Your task to perform on an android device: toggle javascript in the chrome app Image 0: 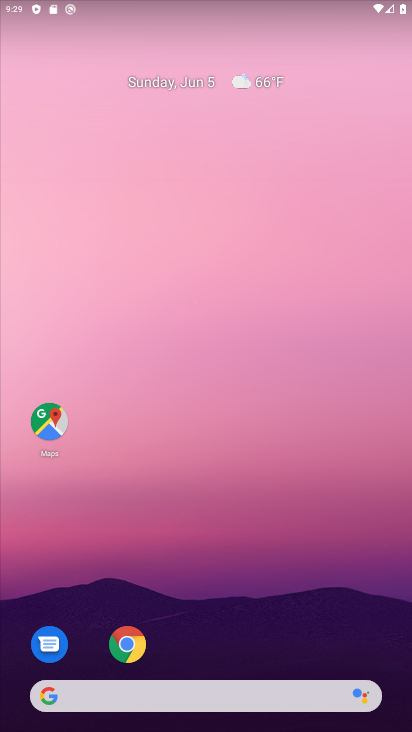
Step 0: click (129, 642)
Your task to perform on an android device: toggle javascript in the chrome app Image 1: 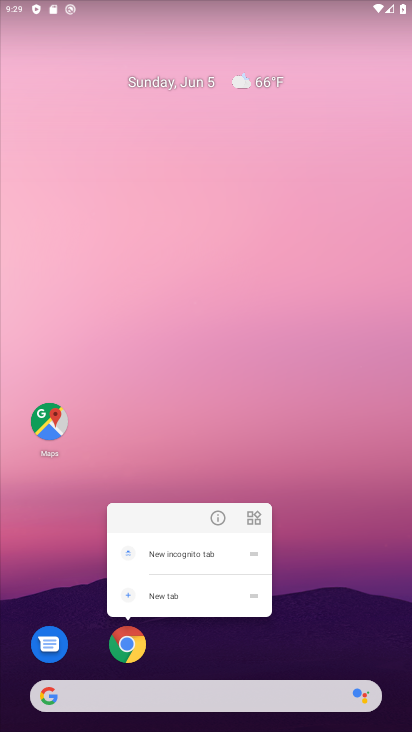
Step 1: click (121, 643)
Your task to perform on an android device: toggle javascript in the chrome app Image 2: 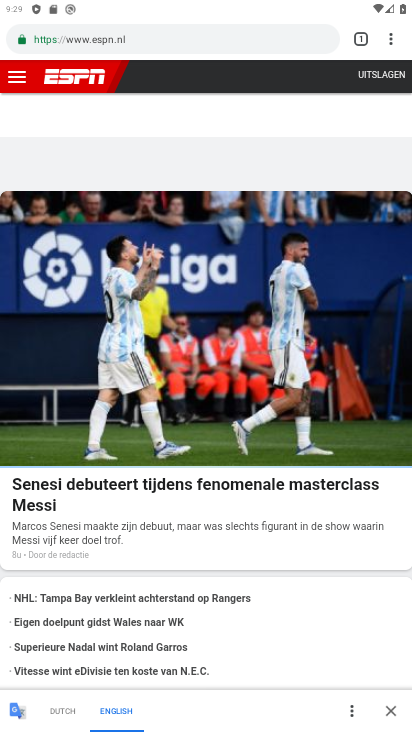
Step 2: click (389, 43)
Your task to perform on an android device: toggle javascript in the chrome app Image 3: 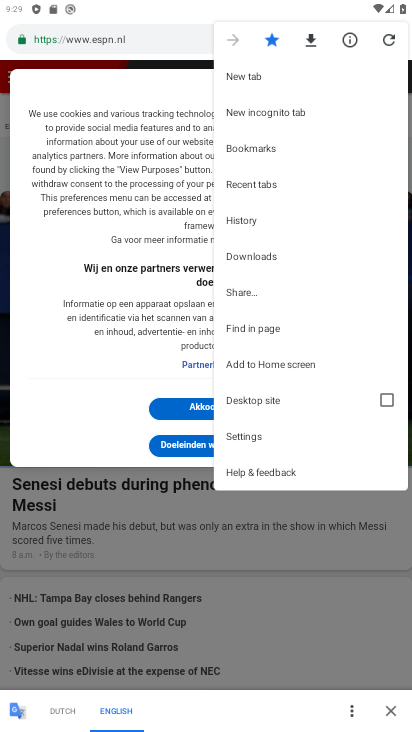
Step 3: click (243, 432)
Your task to perform on an android device: toggle javascript in the chrome app Image 4: 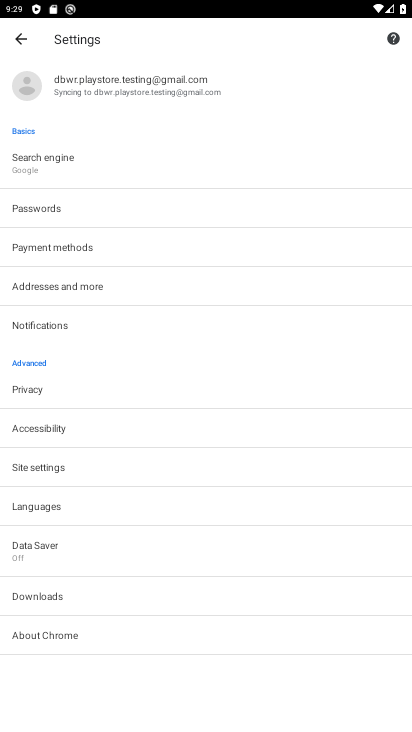
Step 4: click (66, 467)
Your task to perform on an android device: toggle javascript in the chrome app Image 5: 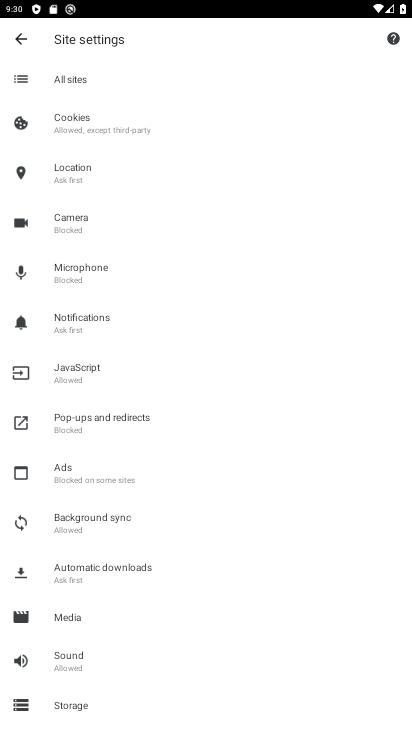
Step 5: click (111, 370)
Your task to perform on an android device: toggle javascript in the chrome app Image 6: 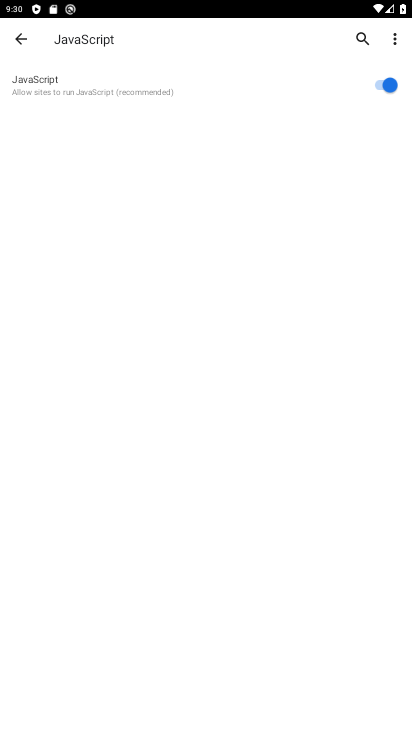
Step 6: click (363, 84)
Your task to perform on an android device: toggle javascript in the chrome app Image 7: 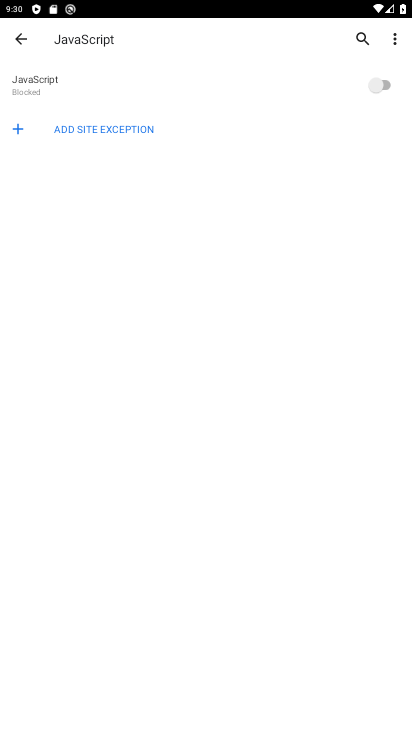
Step 7: task complete